Your task to perform on an android device: Open my contact list Image 0: 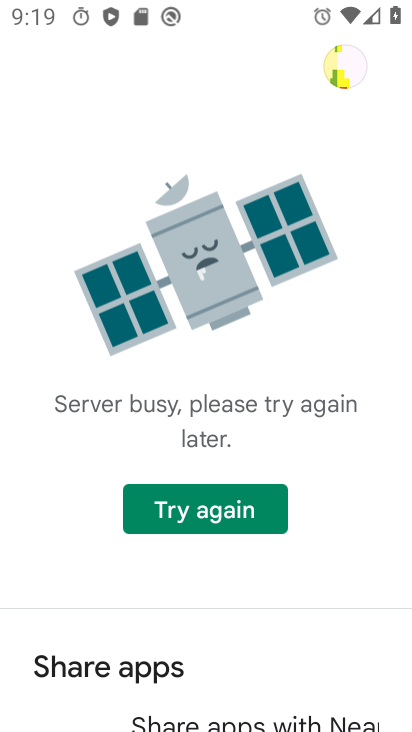
Step 0: click (178, 275)
Your task to perform on an android device: Open my contact list Image 1: 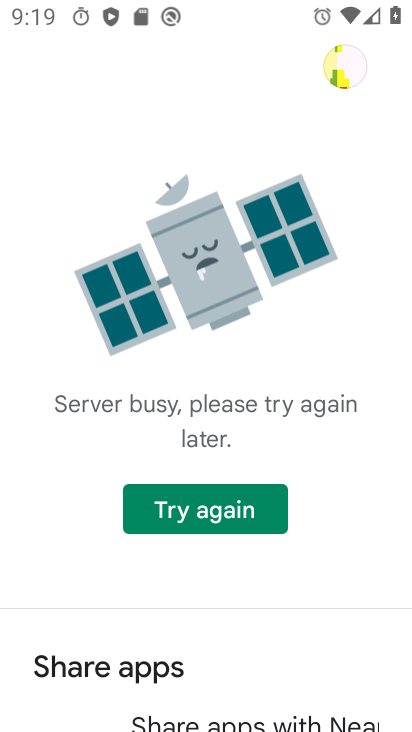
Step 1: task complete